Your task to perform on an android device: install app "Spotify" Image 0: 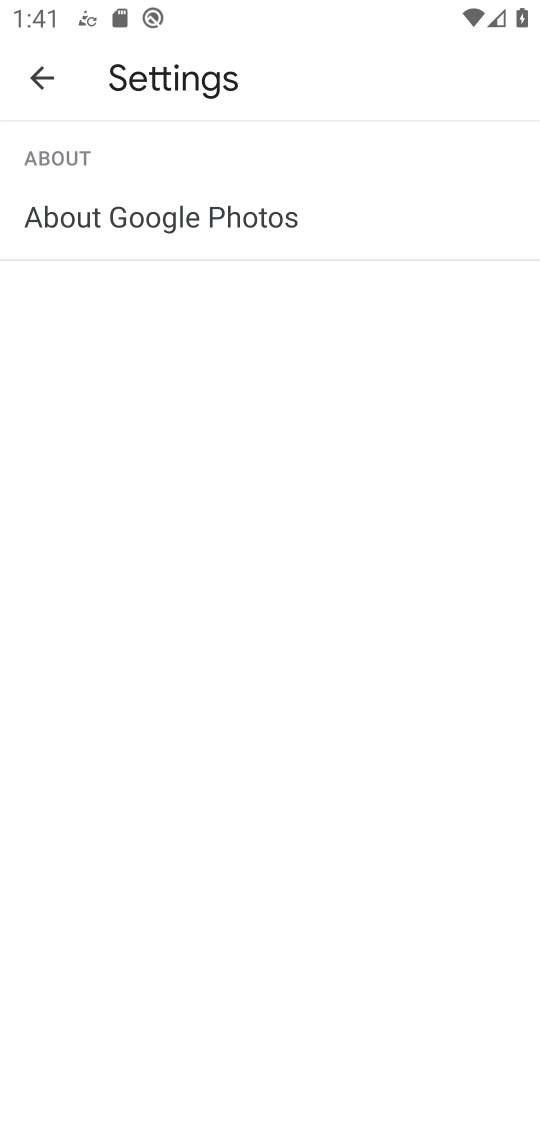
Step 0: press home button
Your task to perform on an android device: install app "Spotify" Image 1: 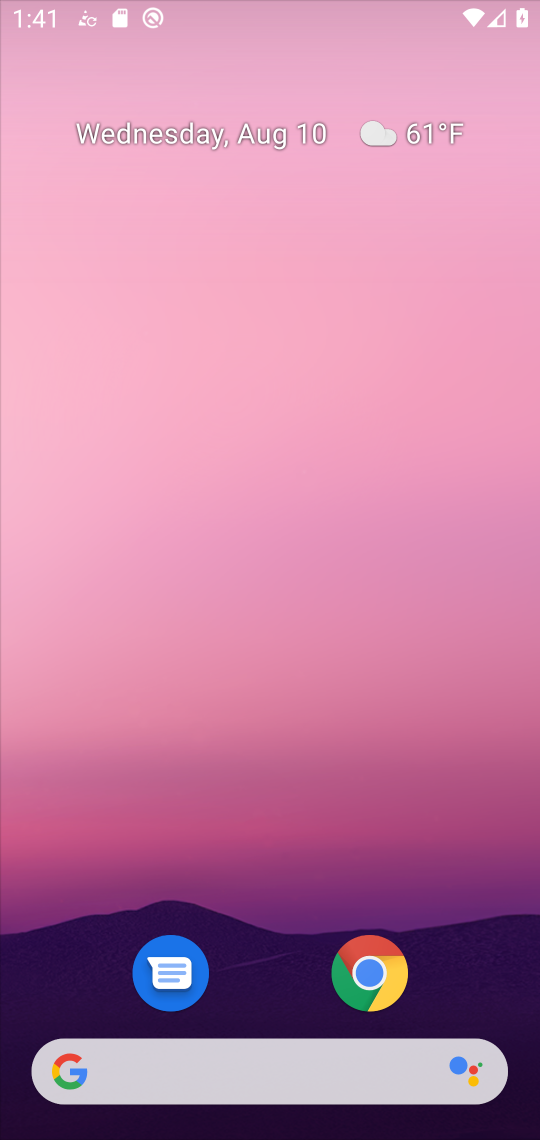
Step 1: drag from (193, 1070) to (219, 451)
Your task to perform on an android device: install app "Spotify" Image 2: 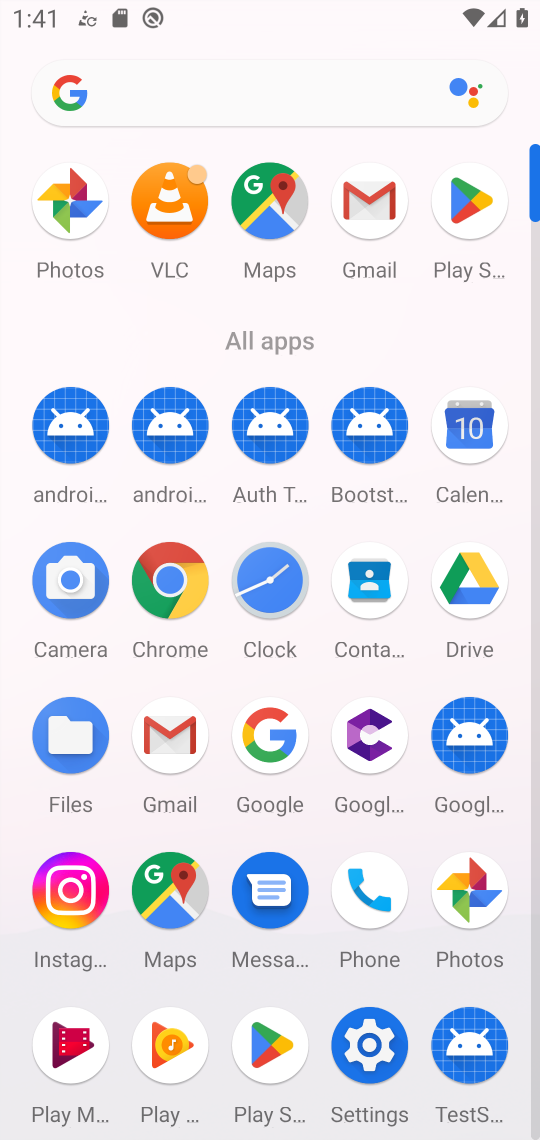
Step 2: click (260, 1030)
Your task to perform on an android device: install app "Spotify" Image 3: 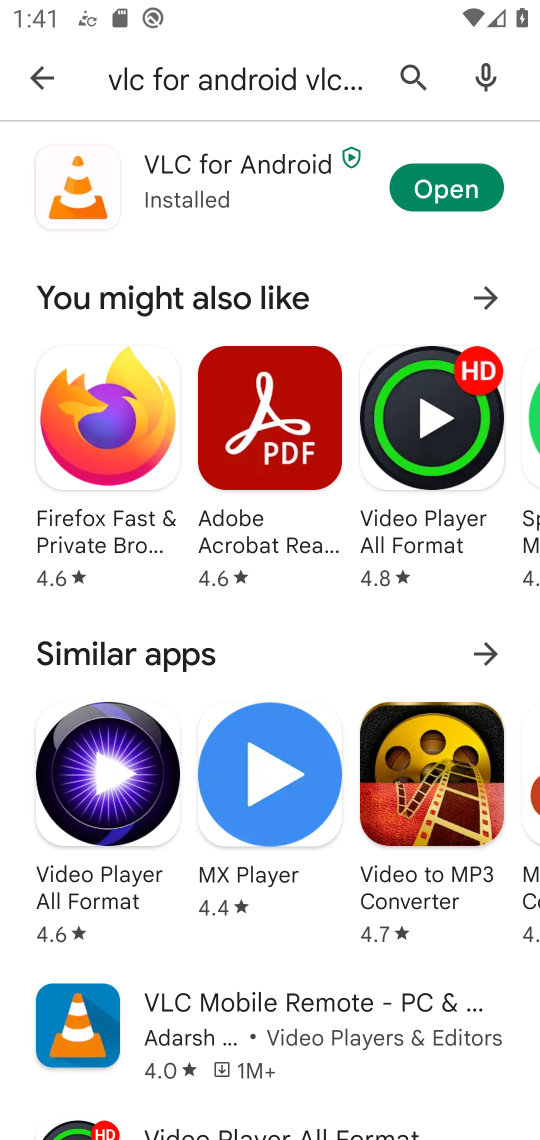
Step 3: click (38, 89)
Your task to perform on an android device: install app "Spotify" Image 4: 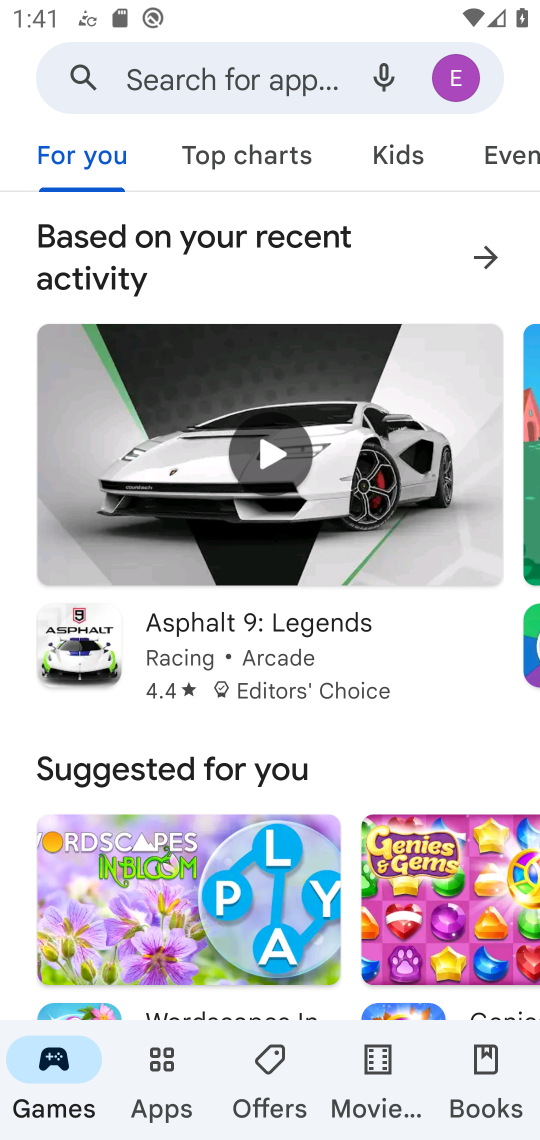
Step 4: click (248, 86)
Your task to perform on an android device: install app "Spotify" Image 5: 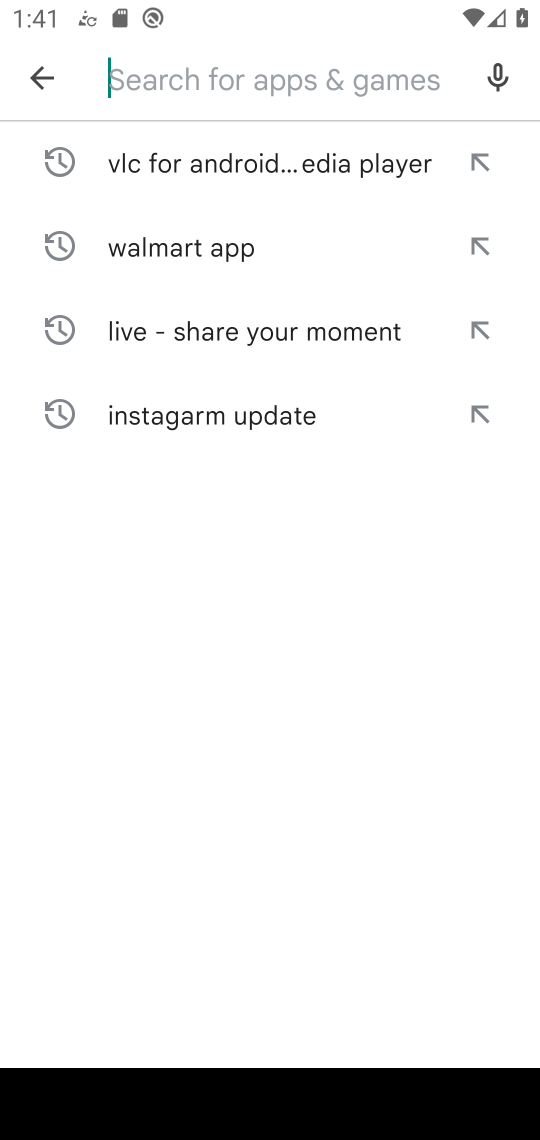
Step 5: type "Spotify "
Your task to perform on an android device: install app "Spotify" Image 6: 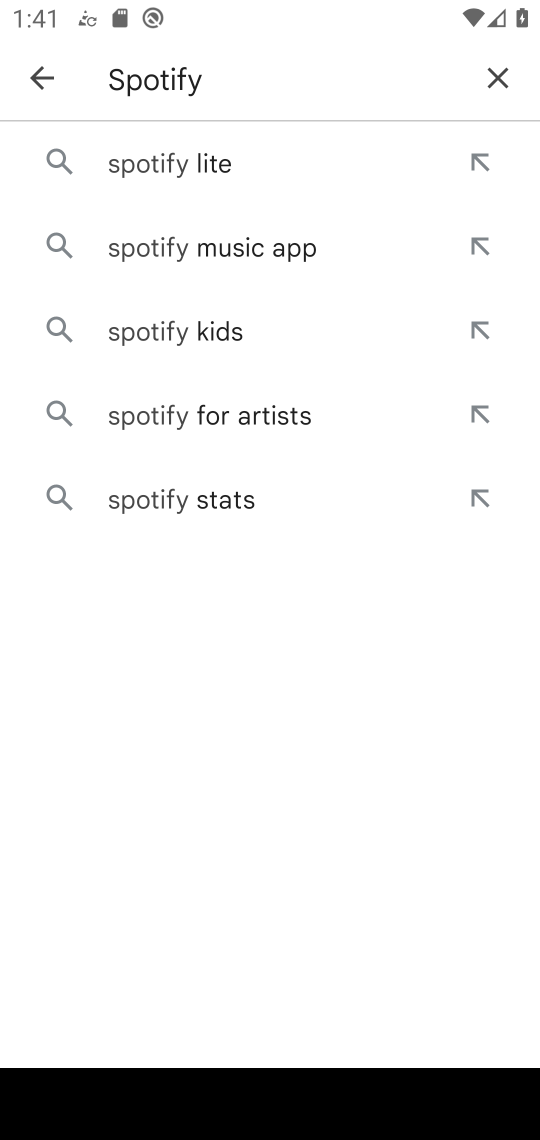
Step 6: click (214, 261)
Your task to perform on an android device: install app "Spotify" Image 7: 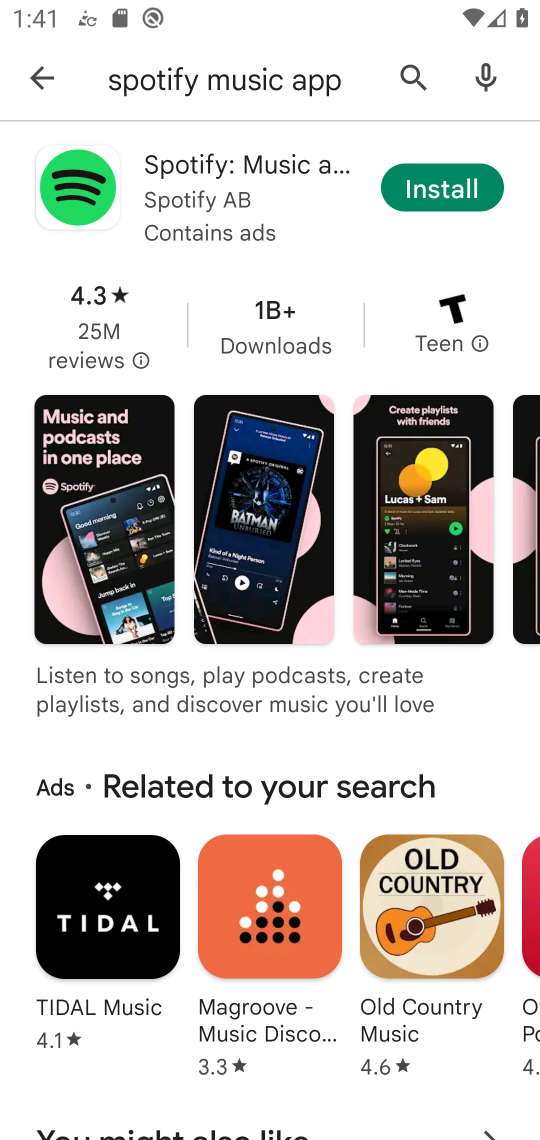
Step 7: click (459, 197)
Your task to perform on an android device: install app "Spotify" Image 8: 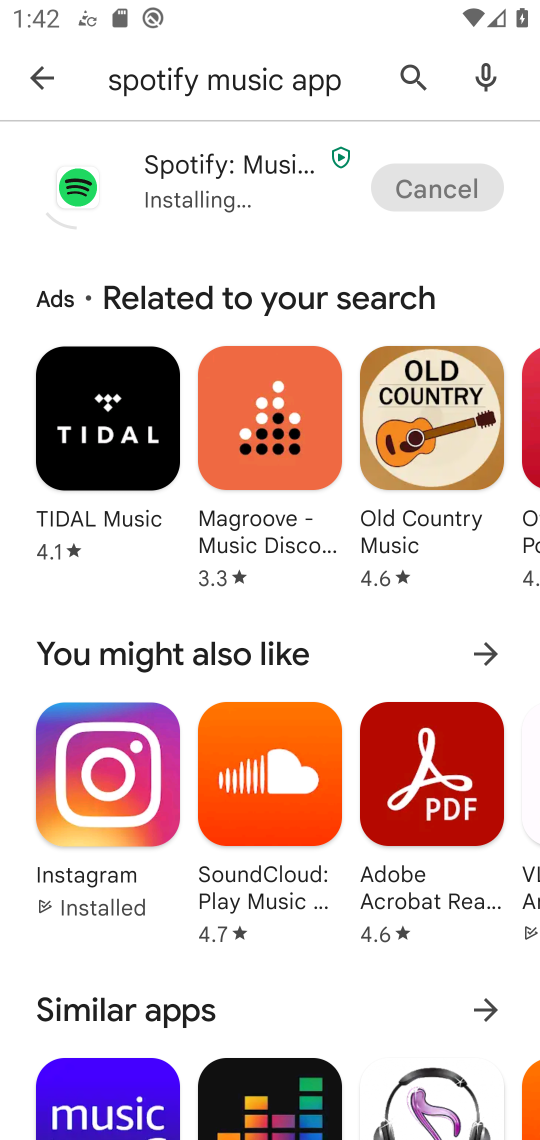
Step 8: click (299, 163)
Your task to perform on an android device: install app "Spotify" Image 9: 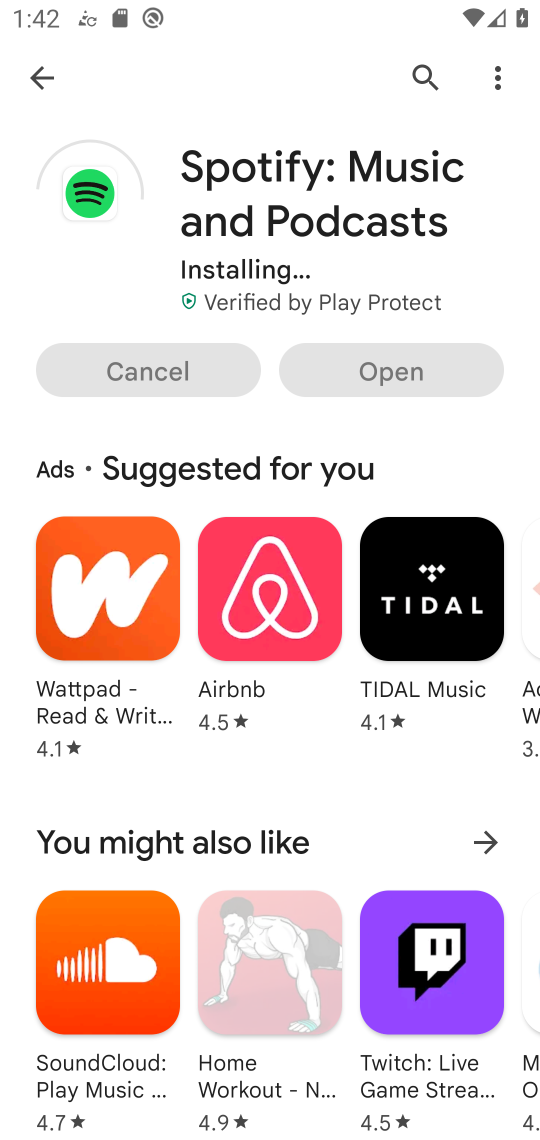
Step 9: click (378, 354)
Your task to perform on an android device: install app "Spotify" Image 10: 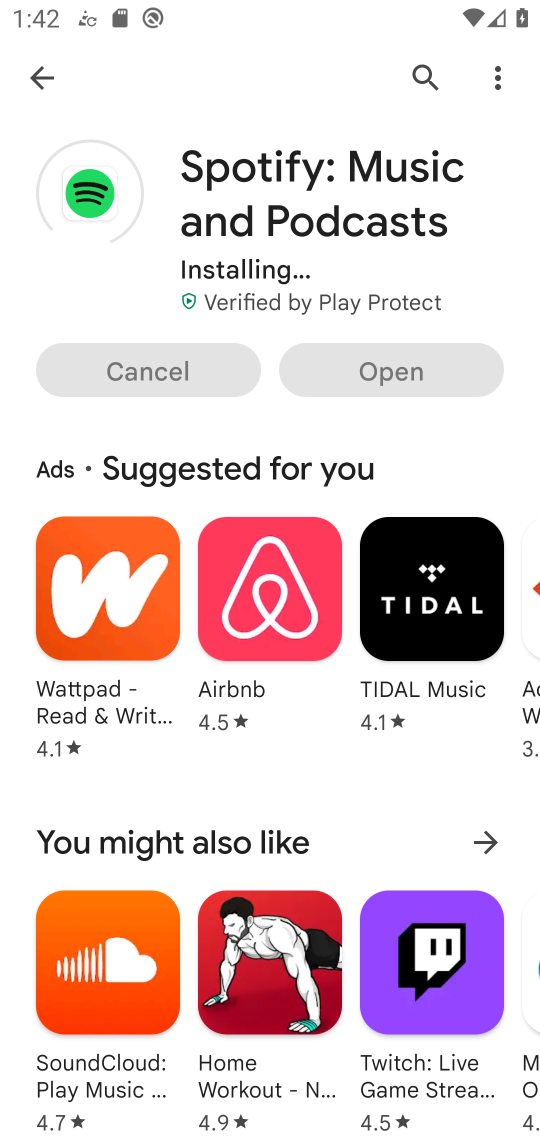
Step 10: click (360, 379)
Your task to perform on an android device: install app "Spotify" Image 11: 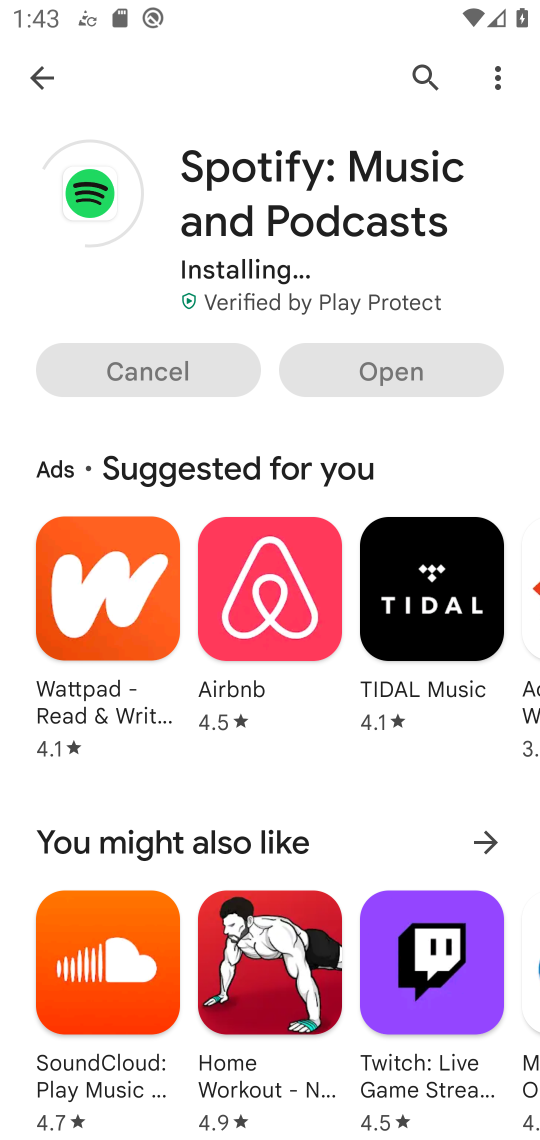
Step 11: task complete